Your task to perform on an android device: Go to Yahoo.com Image 0: 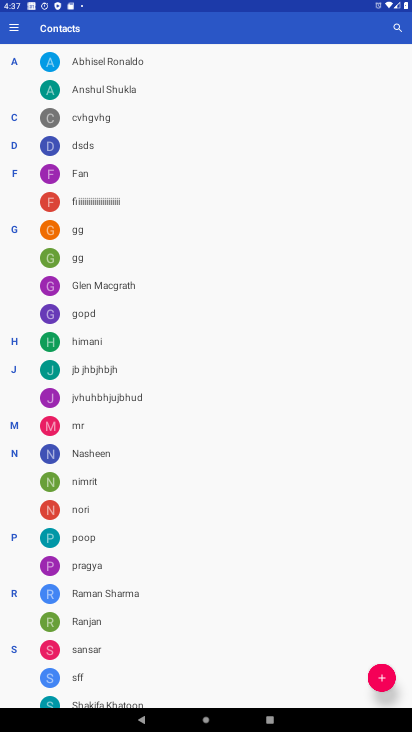
Step 0: press home button
Your task to perform on an android device: Go to Yahoo.com Image 1: 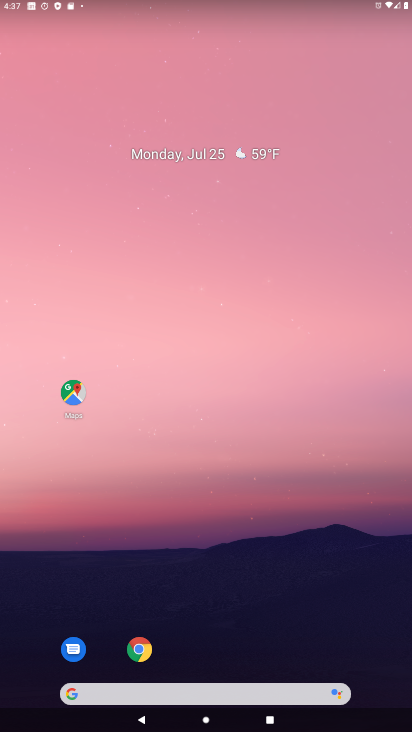
Step 1: drag from (266, 608) to (195, 0)
Your task to perform on an android device: Go to Yahoo.com Image 2: 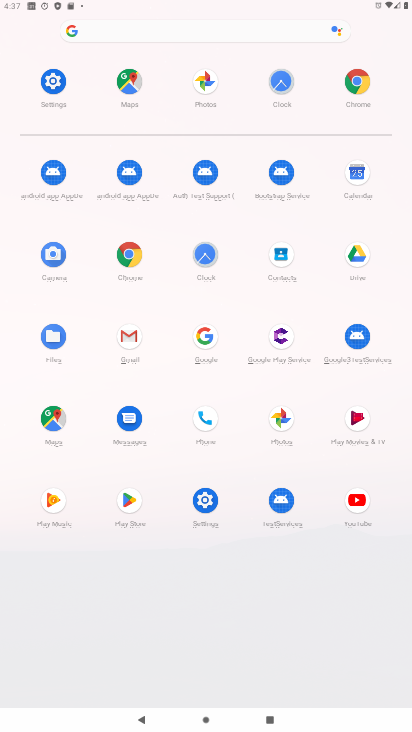
Step 2: click (360, 81)
Your task to perform on an android device: Go to Yahoo.com Image 3: 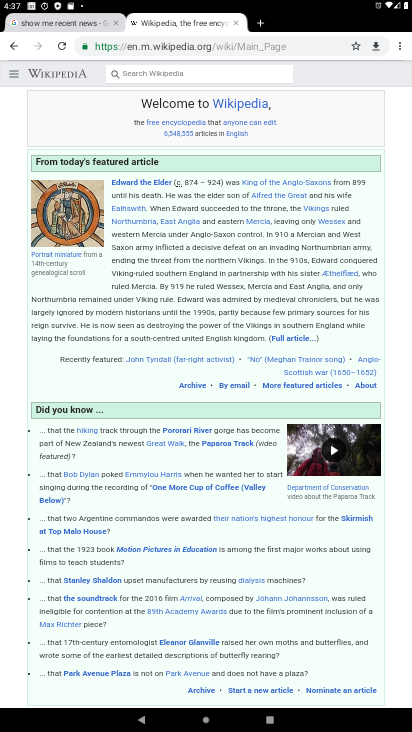
Step 3: click (261, 24)
Your task to perform on an android device: Go to Yahoo.com Image 4: 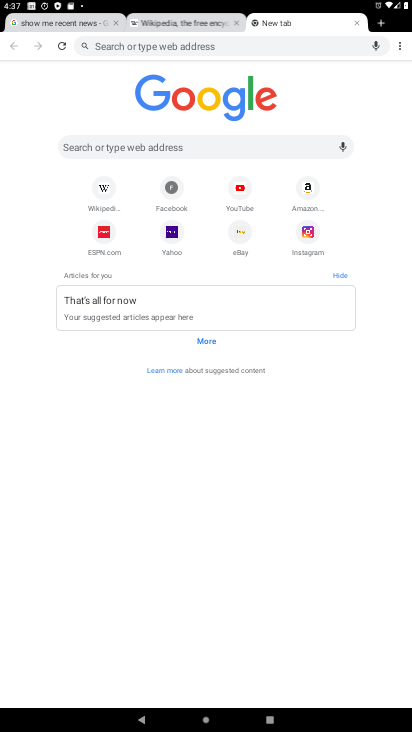
Step 4: click (159, 250)
Your task to perform on an android device: Go to Yahoo.com Image 5: 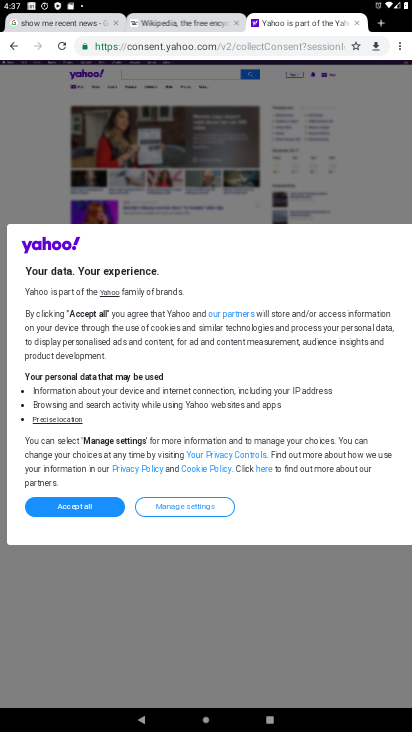
Step 5: task complete